Your task to perform on an android device: Go to battery settings Image 0: 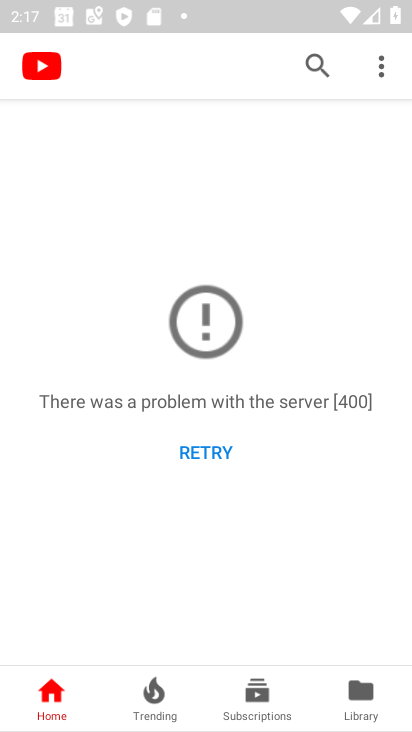
Step 0: press home button
Your task to perform on an android device: Go to battery settings Image 1: 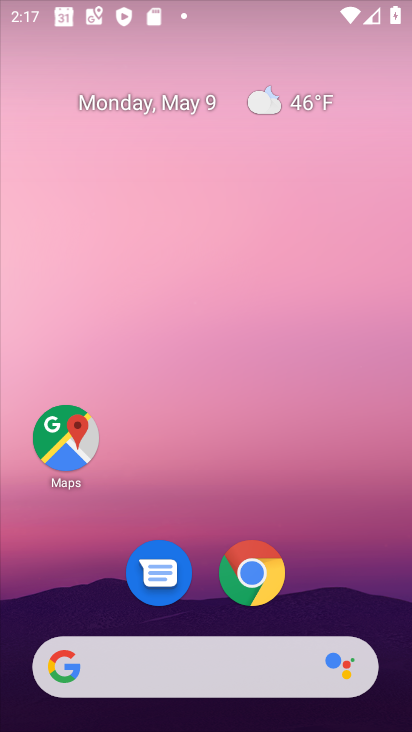
Step 1: drag from (215, 604) to (238, 58)
Your task to perform on an android device: Go to battery settings Image 2: 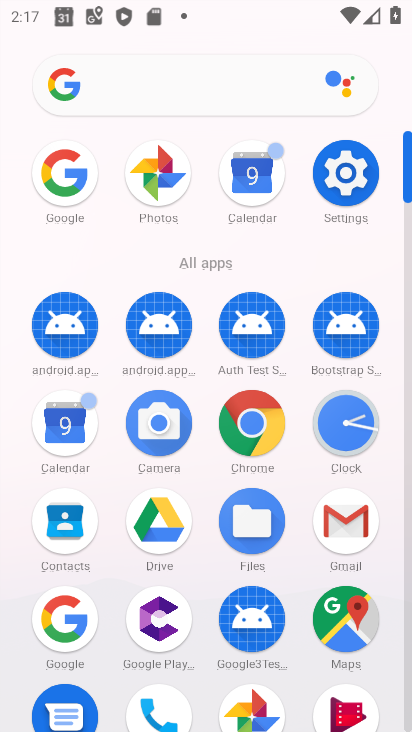
Step 2: click (359, 221)
Your task to perform on an android device: Go to battery settings Image 3: 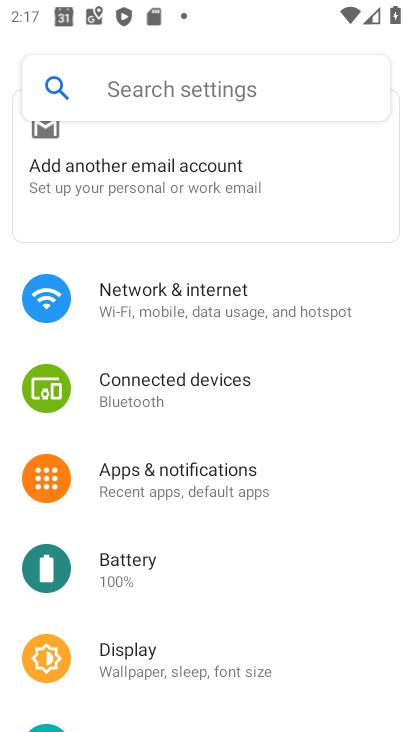
Step 3: click (136, 574)
Your task to perform on an android device: Go to battery settings Image 4: 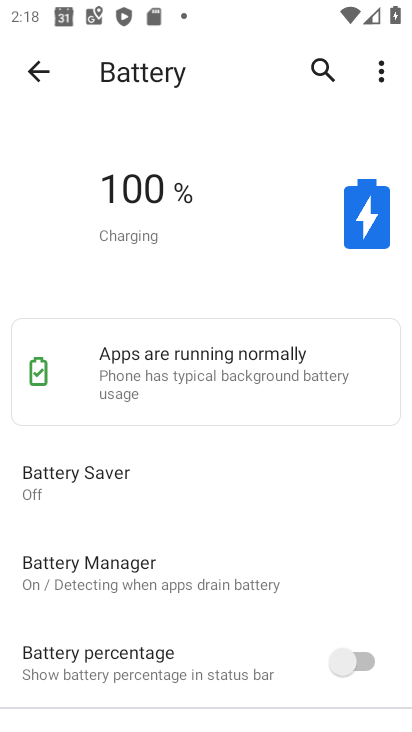
Step 4: task complete